Your task to perform on an android device: Open the calendar app, open the side menu, and click the "Day" option Image 0: 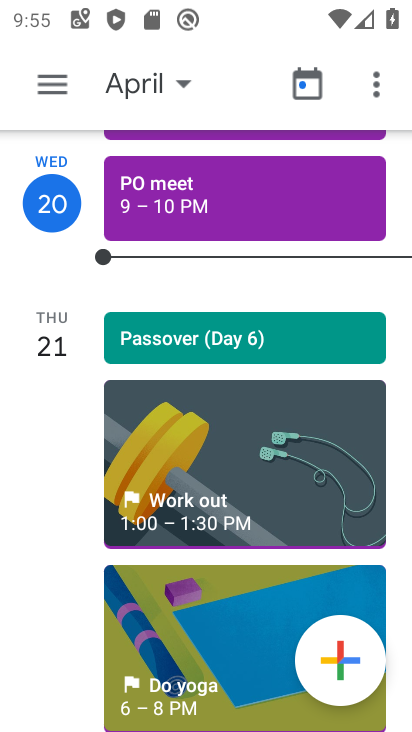
Step 0: click (47, 86)
Your task to perform on an android device: Open the calendar app, open the side menu, and click the "Day" option Image 1: 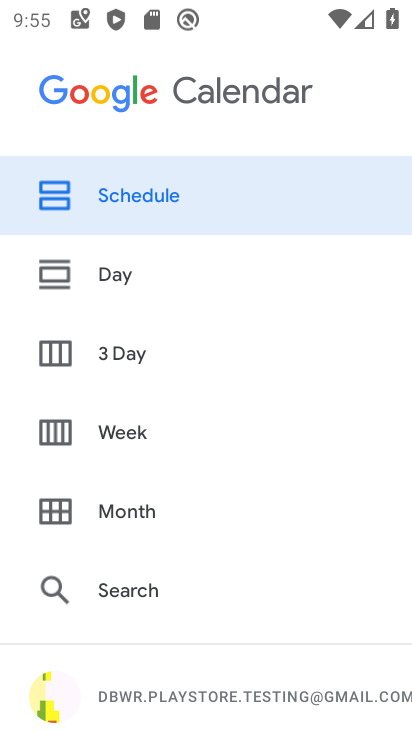
Step 1: click (110, 283)
Your task to perform on an android device: Open the calendar app, open the side menu, and click the "Day" option Image 2: 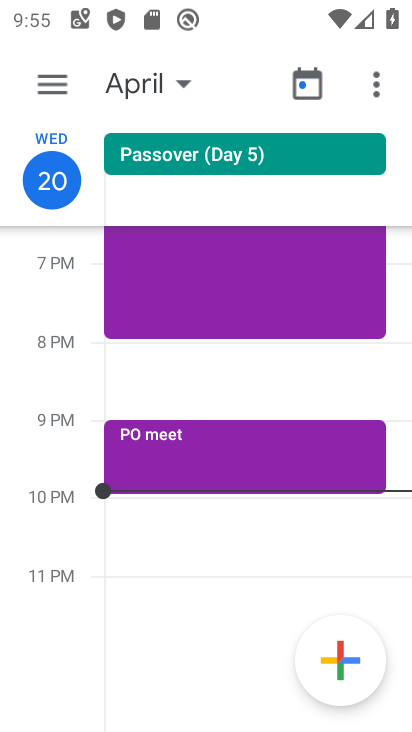
Step 2: task complete